Your task to perform on an android device: turn notification dots off Image 0: 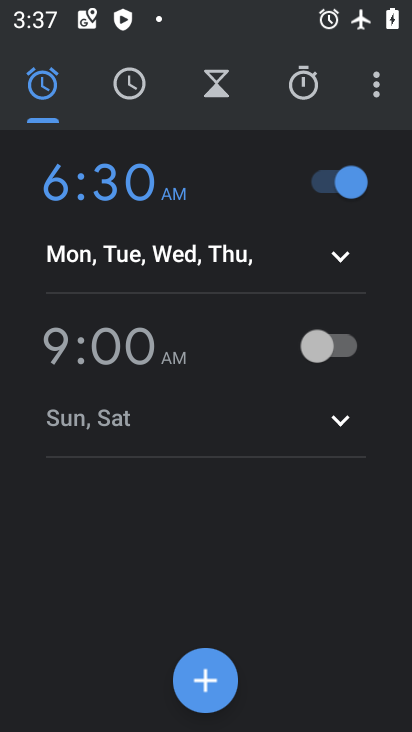
Step 0: press home button
Your task to perform on an android device: turn notification dots off Image 1: 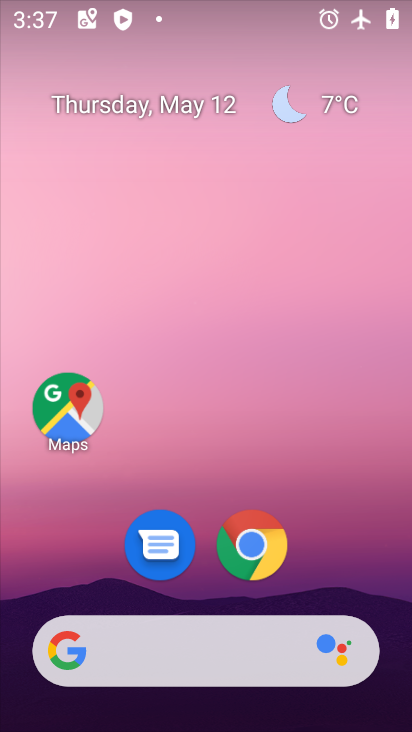
Step 1: drag from (392, 631) to (322, 103)
Your task to perform on an android device: turn notification dots off Image 2: 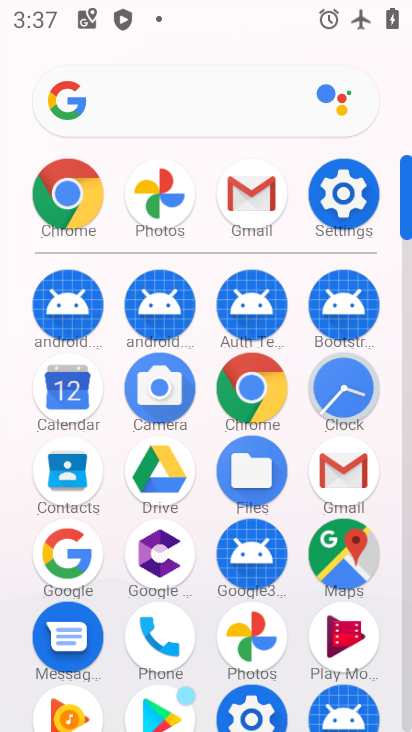
Step 2: click (408, 712)
Your task to perform on an android device: turn notification dots off Image 3: 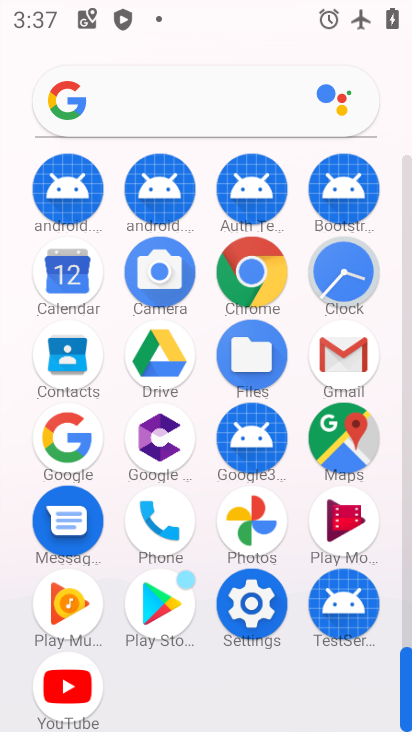
Step 3: click (254, 605)
Your task to perform on an android device: turn notification dots off Image 4: 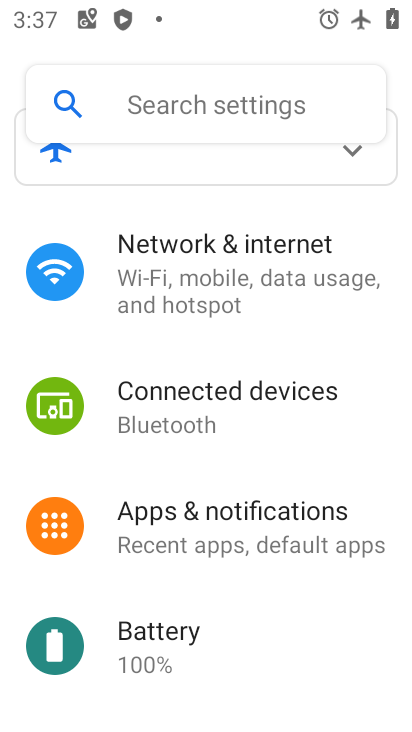
Step 4: click (218, 493)
Your task to perform on an android device: turn notification dots off Image 5: 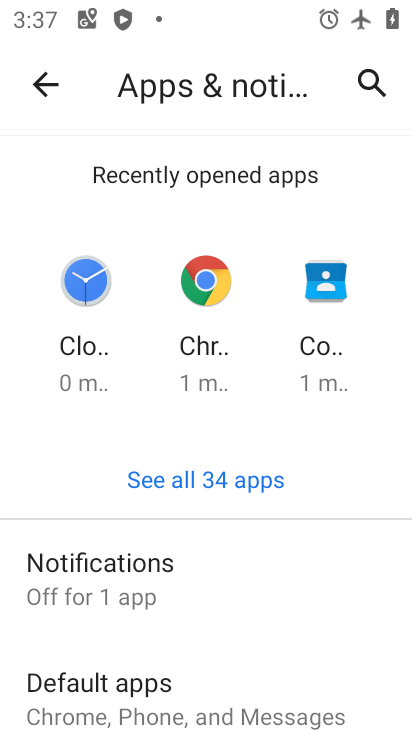
Step 5: click (132, 564)
Your task to perform on an android device: turn notification dots off Image 6: 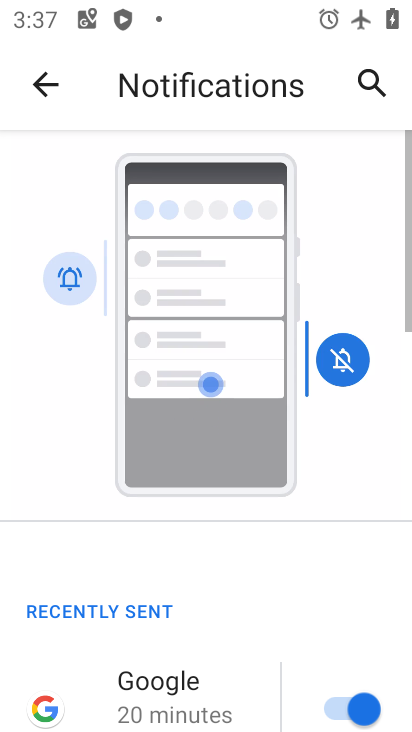
Step 6: drag from (281, 686) to (296, 135)
Your task to perform on an android device: turn notification dots off Image 7: 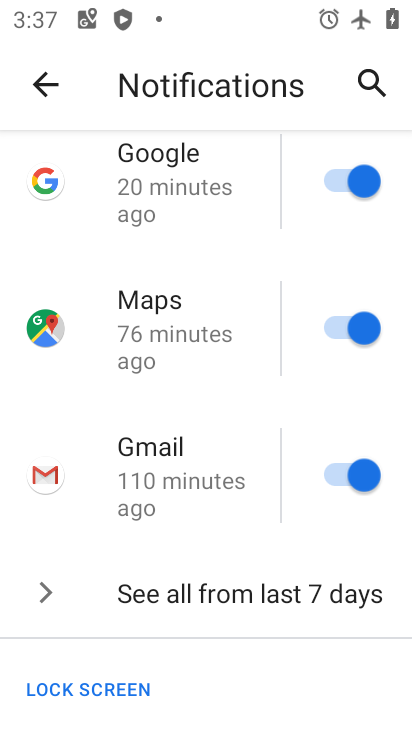
Step 7: drag from (256, 708) to (322, 106)
Your task to perform on an android device: turn notification dots off Image 8: 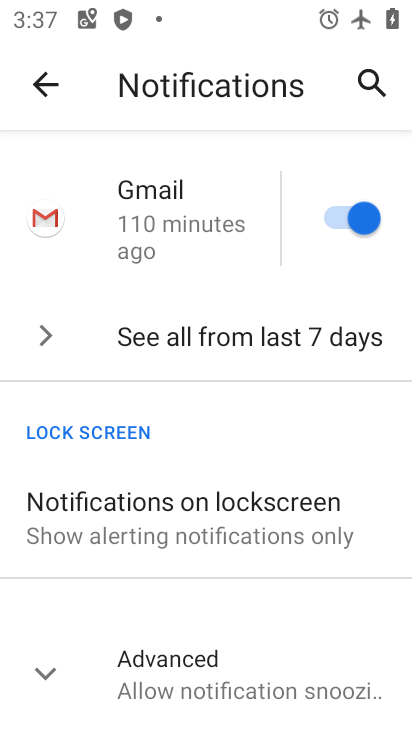
Step 8: drag from (205, 584) to (279, 115)
Your task to perform on an android device: turn notification dots off Image 9: 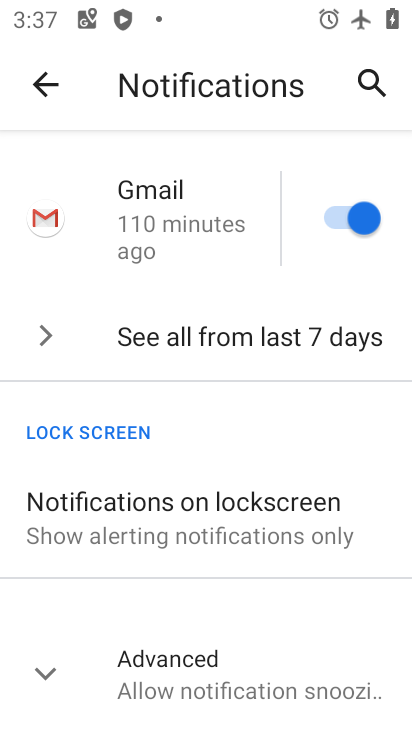
Step 9: click (35, 686)
Your task to perform on an android device: turn notification dots off Image 10: 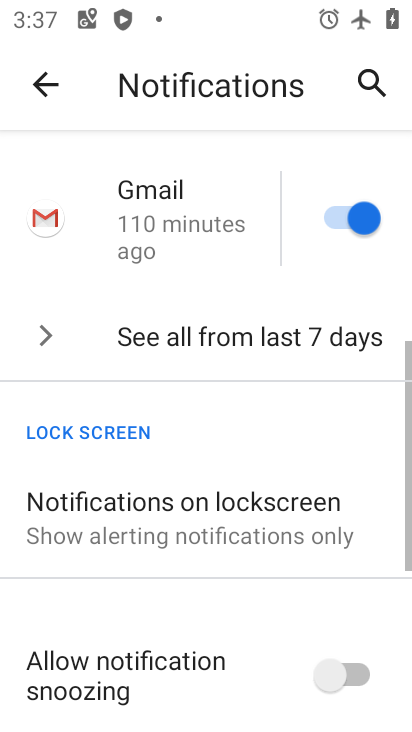
Step 10: drag from (234, 617) to (294, 127)
Your task to perform on an android device: turn notification dots off Image 11: 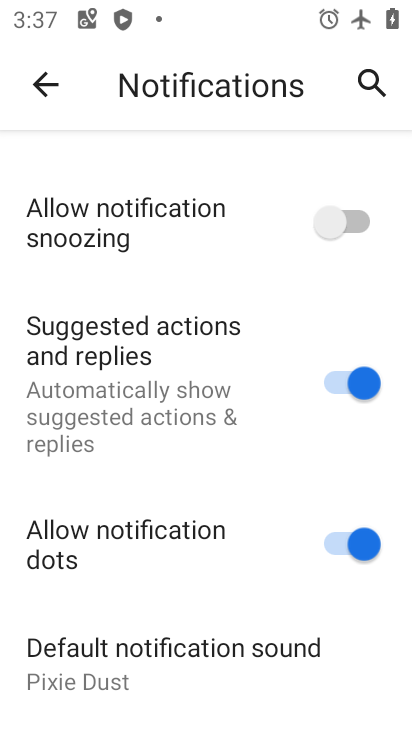
Step 11: click (337, 542)
Your task to perform on an android device: turn notification dots off Image 12: 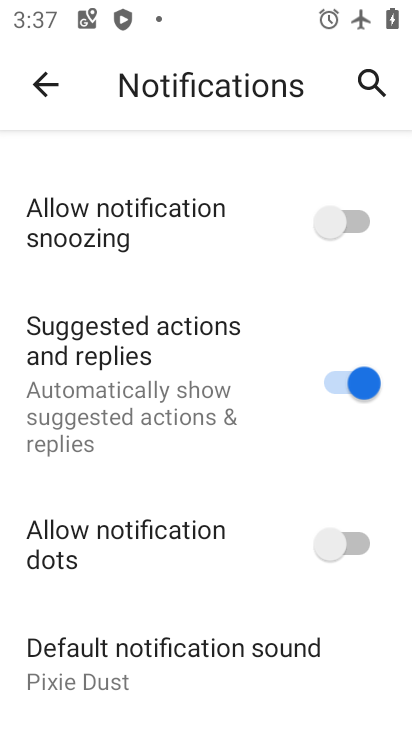
Step 12: task complete